Your task to perform on an android device: turn off translation in the chrome app Image 0: 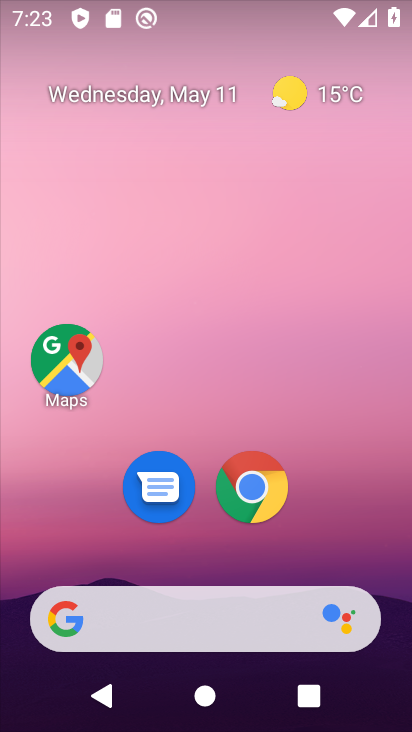
Step 0: drag from (263, 658) to (144, 261)
Your task to perform on an android device: turn off translation in the chrome app Image 1: 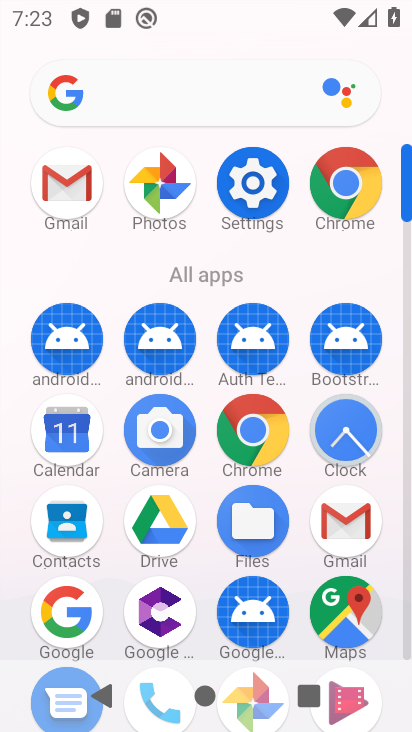
Step 1: click (334, 206)
Your task to perform on an android device: turn off translation in the chrome app Image 2: 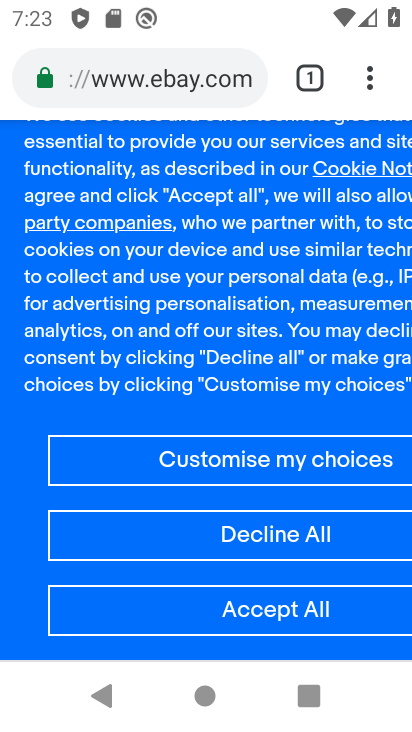
Step 2: click (356, 89)
Your task to perform on an android device: turn off translation in the chrome app Image 3: 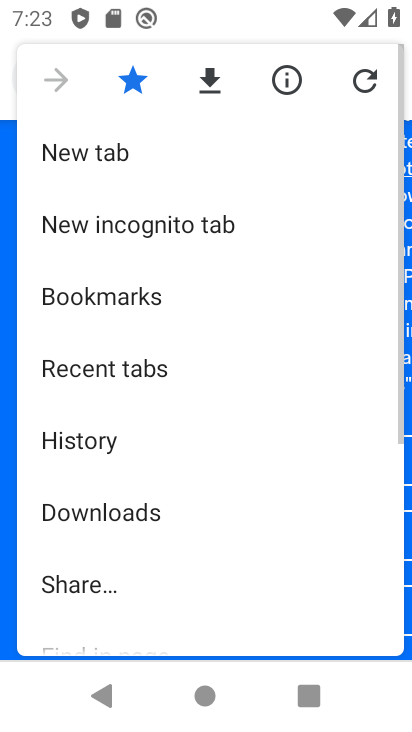
Step 3: drag from (159, 552) to (191, 239)
Your task to perform on an android device: turn off translation in the chrome app Image 4: 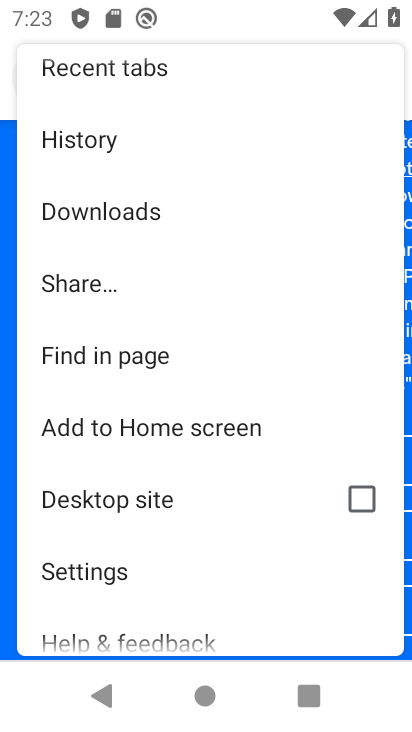
Step 4: click (127, 576)
Your task to perform on an android device: turn off translation in the chrome app Image 5: 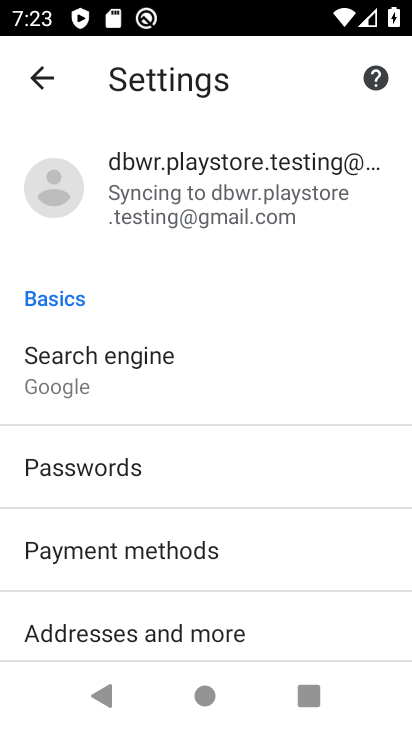
Step 5: drag from (187, 595) to (200, 192)
Your task to perform on an android device: turn off translation in the chrome app Image 6: 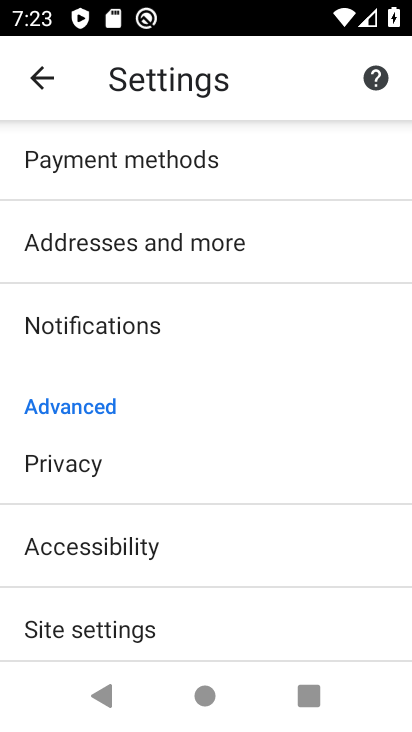
Step 6: drag from (116, 613) to (134, 390)
Your task to perform on an android device: turn off translation in the chrome app Image 7: 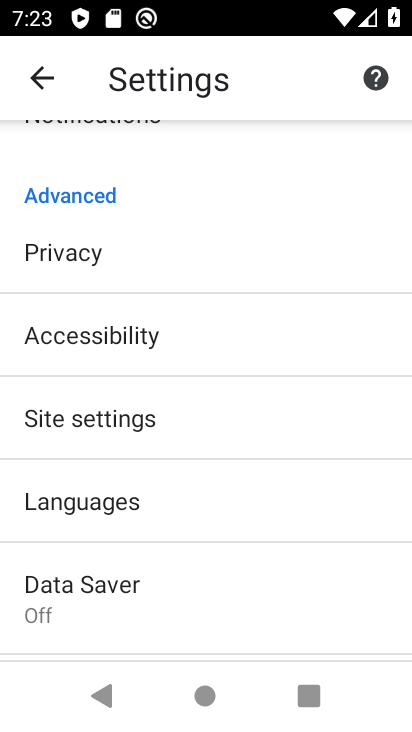
Step 7: click (112, 521)
Your task to perform on an android device: turn off translation in the chrome app Image 8: 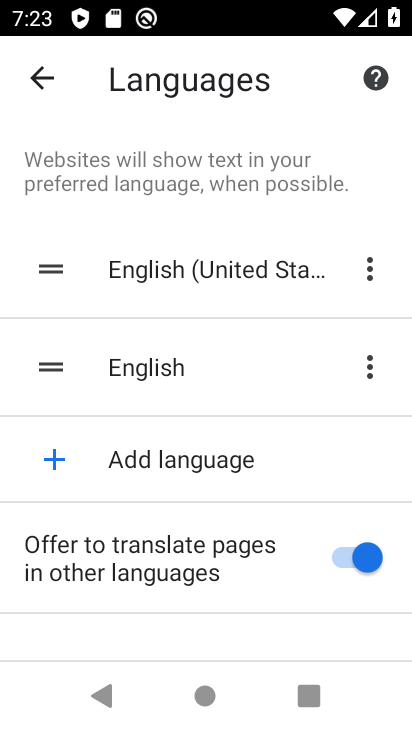
Step 8: click (254, 566)
Your task to perform on an android device: turn off translation in the chrome app Image 9: 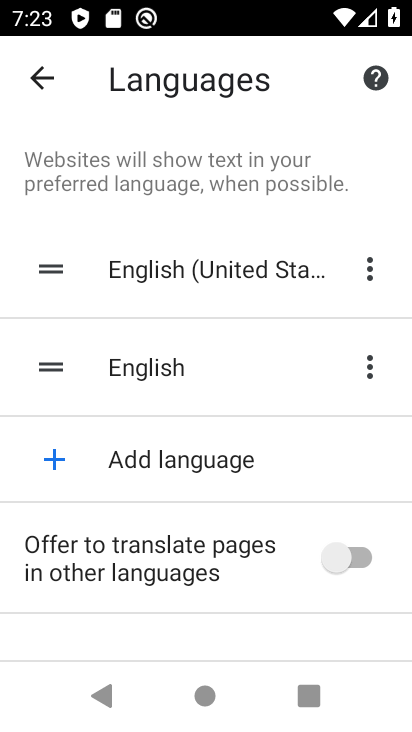
Step 9: click (254, 566)
Your task to perform on an android device: turn off translation in the chrome app Image 10: 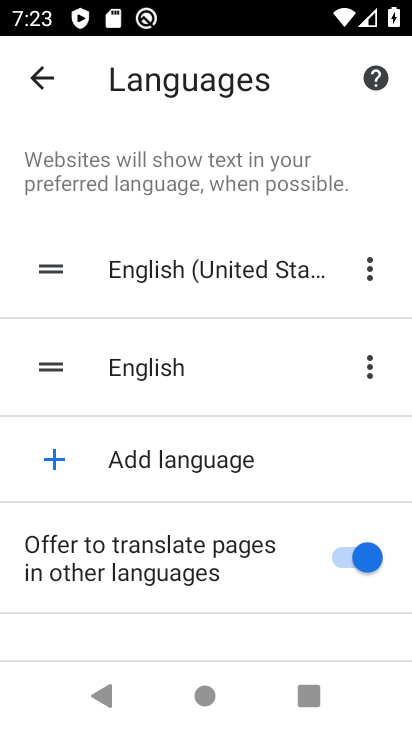
Step 10: click (255, 566)
Your task to perform on an android device: turn off translation in the chrome app Image 11: 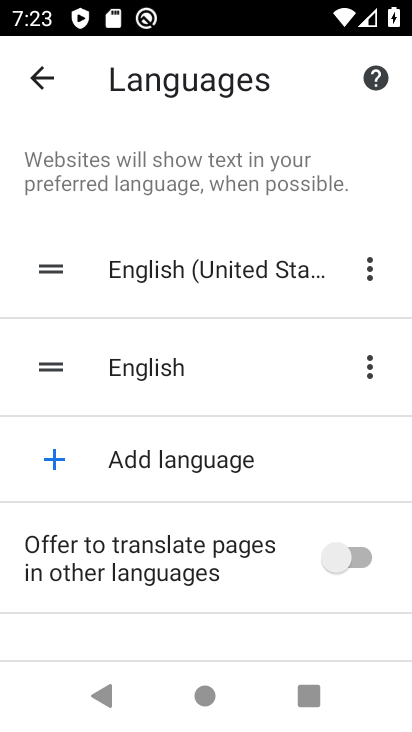
Step 11: task complete